Your task to perform on an android device: Open calendar and show me the second week of next month Image 0: 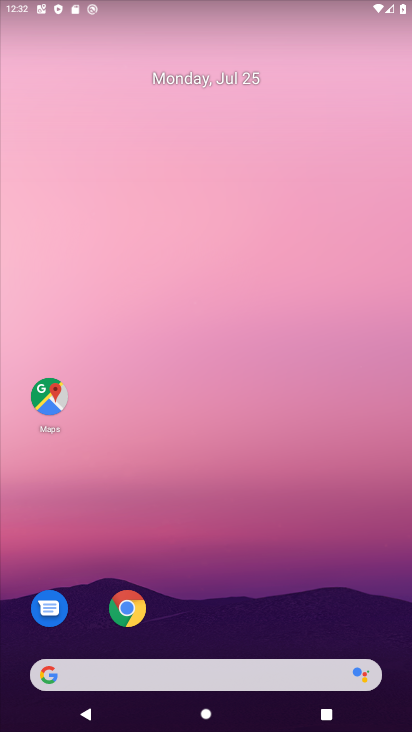
Step 0: drag from (265, 645) to (298, 32)
Your task to perform on an android device: Open calendar and show me the second week of next month Image 1: 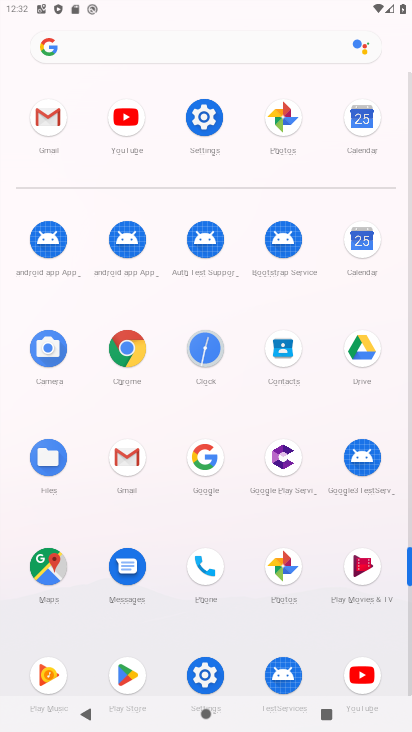
Step 1: click (364, 122)
Your task to perform on an android device: Open calendar and show me the second week of next month Image 2: 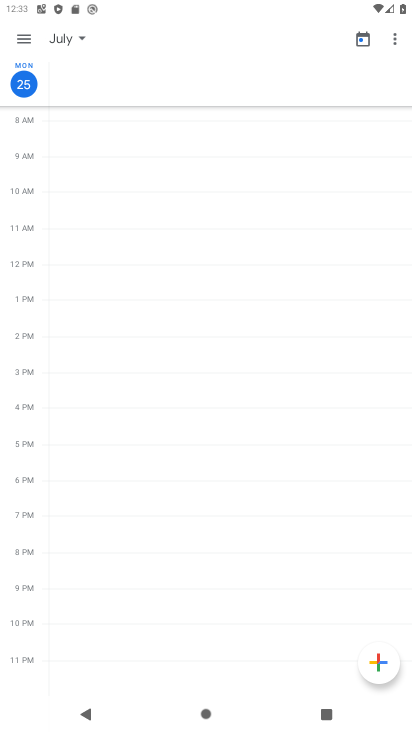
Step 2: click (79, 39)
Your task to perform on an android device: Open calendar and show me the second week of next month Image 3: 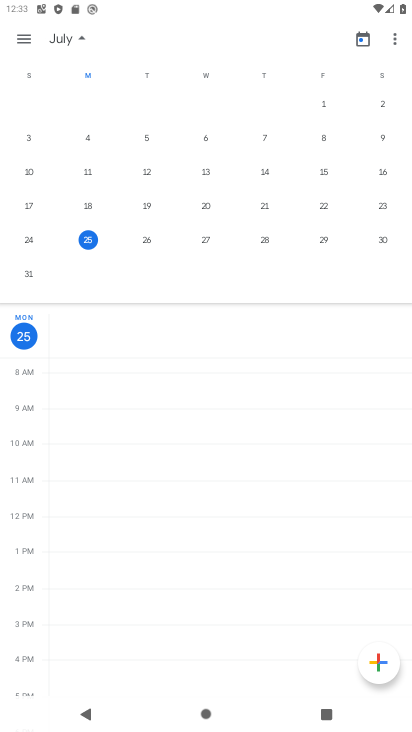
Step 3: drag from (270, 171) to (7, 166)
Your task to perform on an android device: Open calendar and show me the second week of next month Image 4: 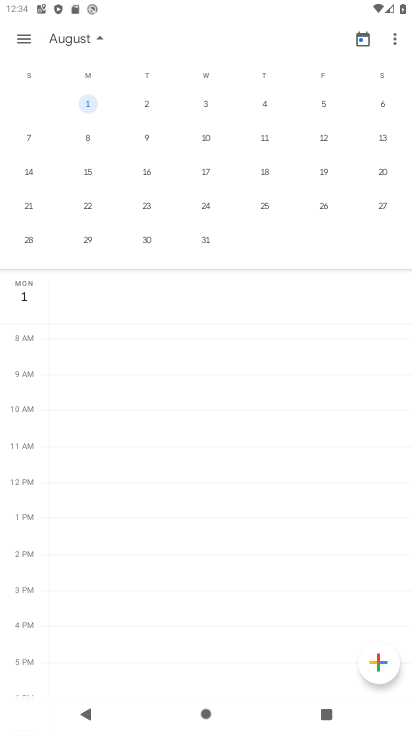
Step 4: click (27, 41)
Your task to perform on an android device: Open calendar and show me the second week of next month Image 5: 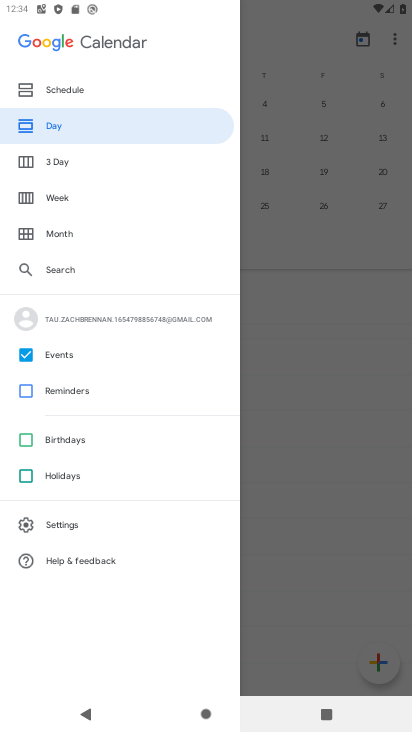
Step 5: click (30, 195)
Your task to perform on an android device: Open calendar and show me the second week of next month Image 6: 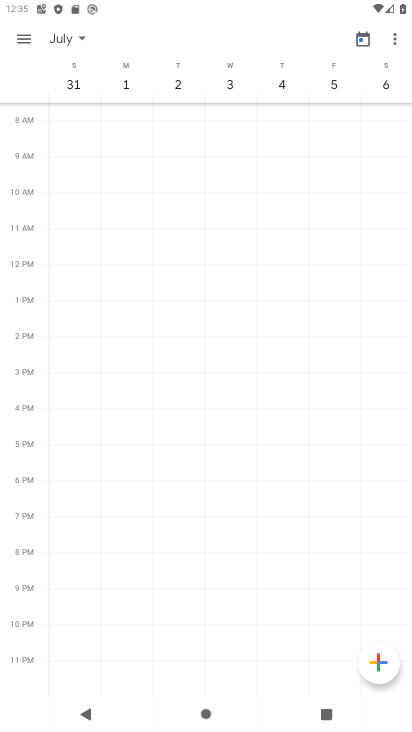
Step 6: task complete